Your task to perform on an android device: turn off sleep mode Image 0: 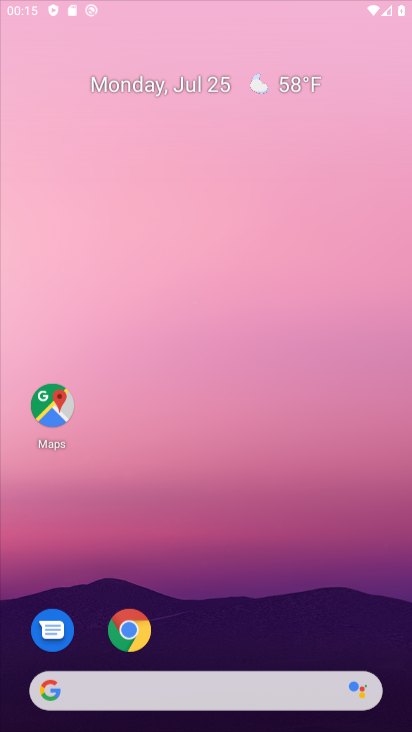
Step 0: drag from (278, 462) to (159, 55)
Your task to perform on an android device: turn off sleep mode Image 1: 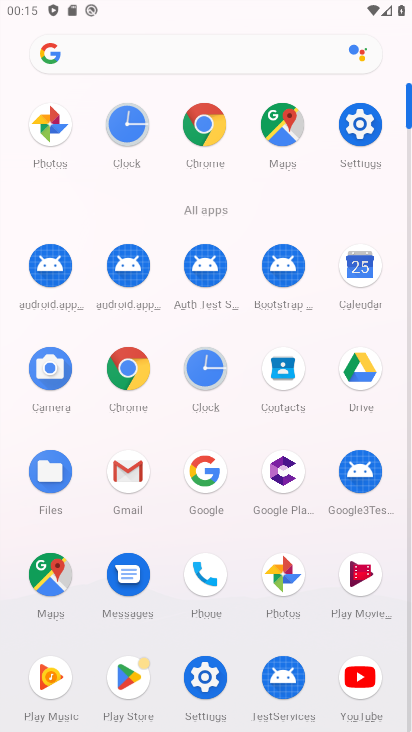
Step 1: click (342, 130)
Your task to perform on an android device: turn off sleep mode Image 2: 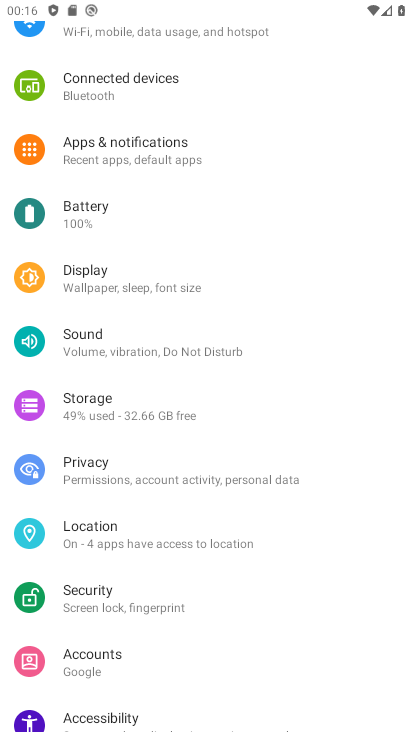
Step 2: click (67, 297)
Your task to perform on an android device: turn off sleep mode Image 3: 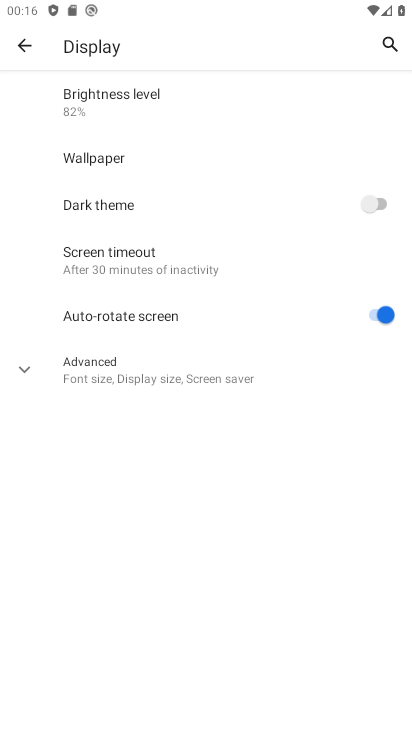
Step 3: click (136, 262)
Your task to perform on an android device: turn off sleep mode Image 4: 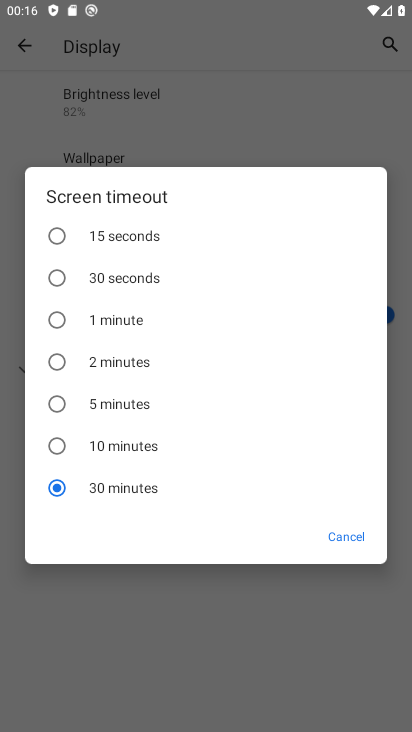
Step 4: task complete